Your task to perform on an android device: turn pop-ups on in chrome Image 0: 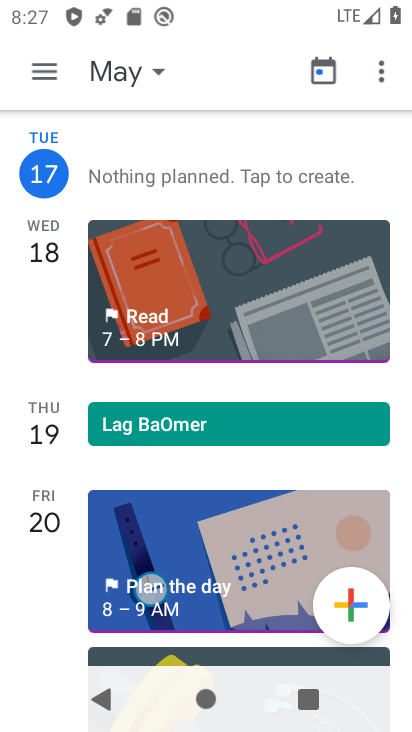
Step 0: press back button
Your task to perform on an android device: turn pop-ups on in chrome Image 1: 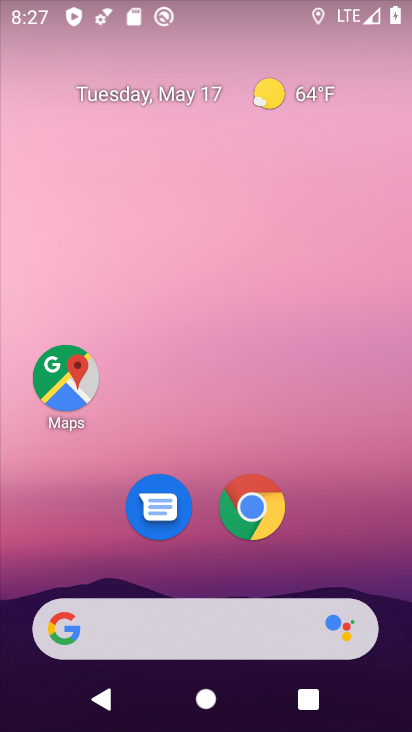
Step 1: click (254, 505)
Your task to perform on an android device: turn pop-ups on in chrome Image 2: 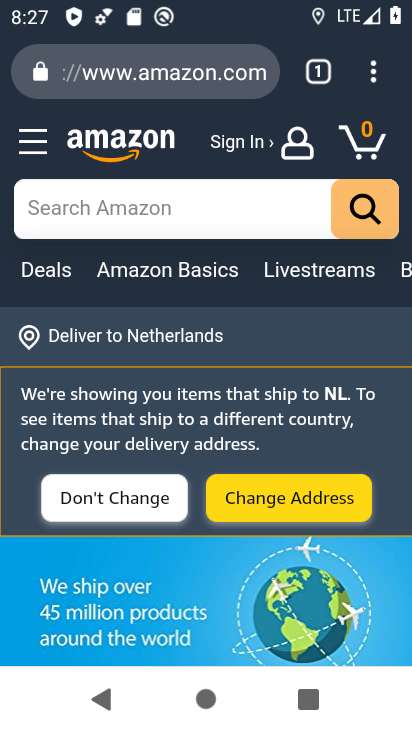
Step 2: click (374, 72)
Your task to perform on an android device: turn pop-ups on in chrome Image 3: 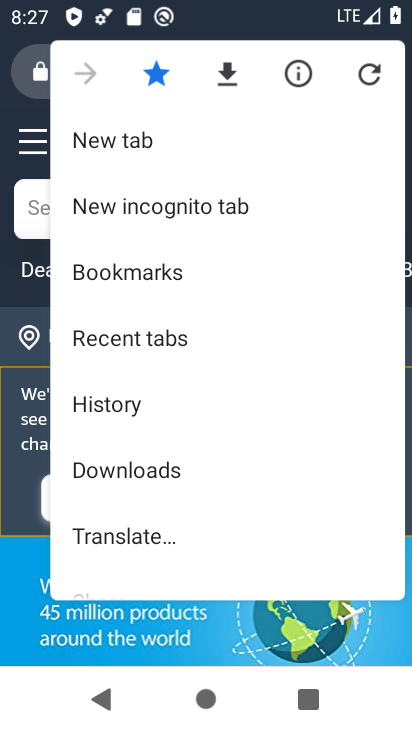
Step 3: drag from (189, 429) to (242, 344)
Your task to perform on an android device: turn pop-ups on in chrome Image 4: 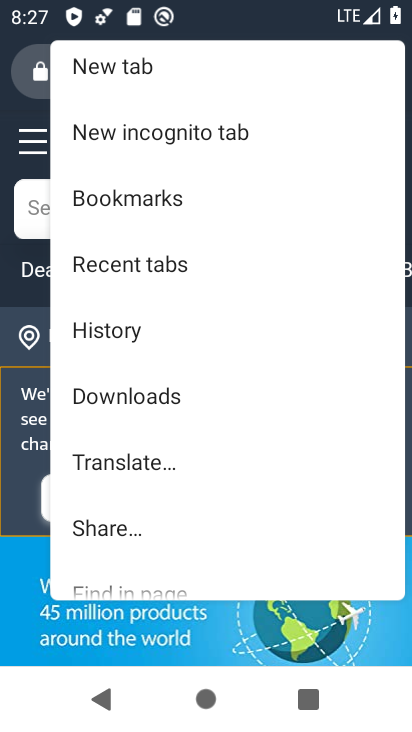
Step 4: drag from (197, 517) to (233, 437)
Your task to perform on an android device: turn pop-ups on in chrome Image 5: 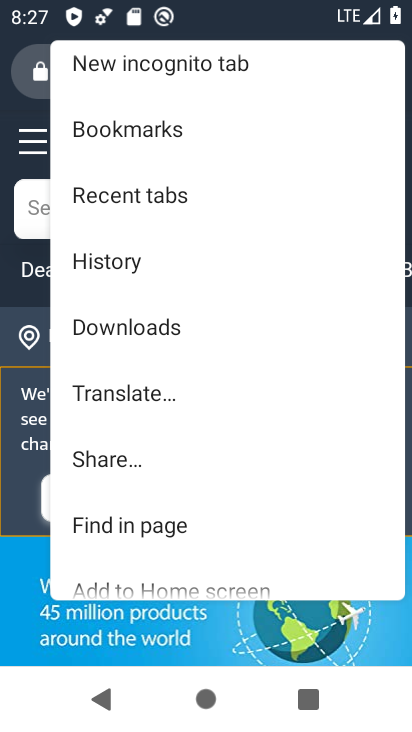
Step 5: drag from (162, 560) to (233, 436)
Your task to perform on an android device: turn pop-ups on in chrome Image 6: 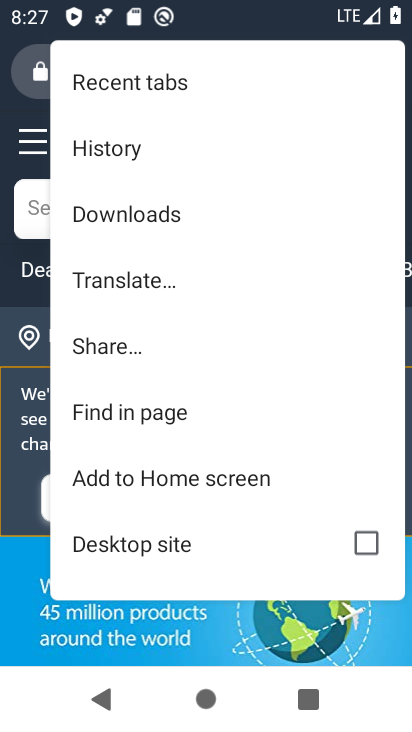
Step 6: drag from (200, 571) to (279, 471)
Your task to perform on an android device: turn pop-ups on in chrome Image 7: 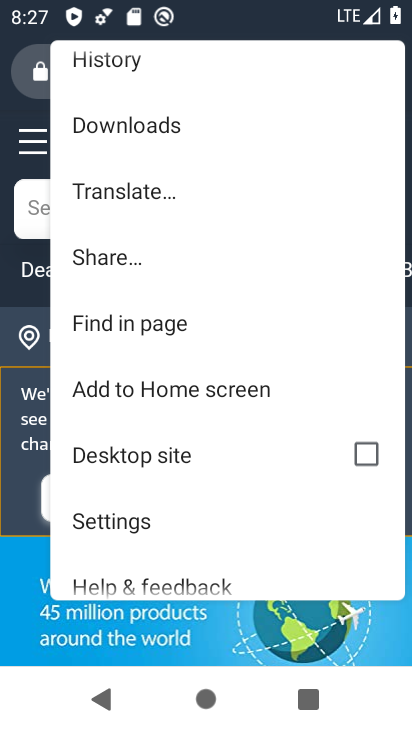
Step 7: click (128, 525)
Your task to perform on an android device: turn pop-ups on in chrome Image 8: 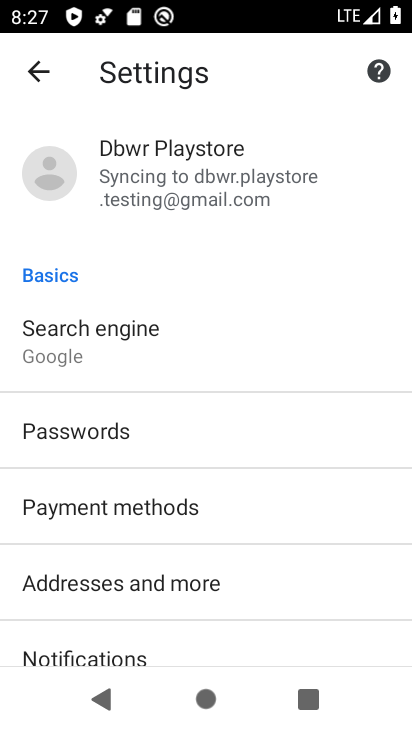
Step 8: drag from (125, 549) to (171, 459)
Your task to perform on an android device: turn pop-ups on in chrome Image 9: 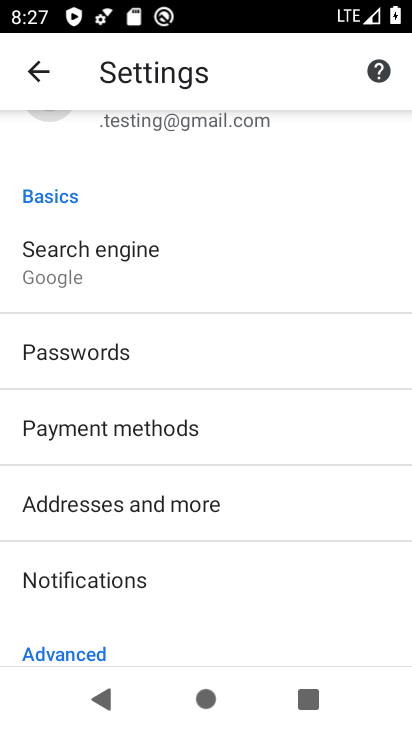
Step 9: drag from (150, 564) to (207, 487)
Your task to perform on an android device: turn pop-ups on in chrome Image 10: 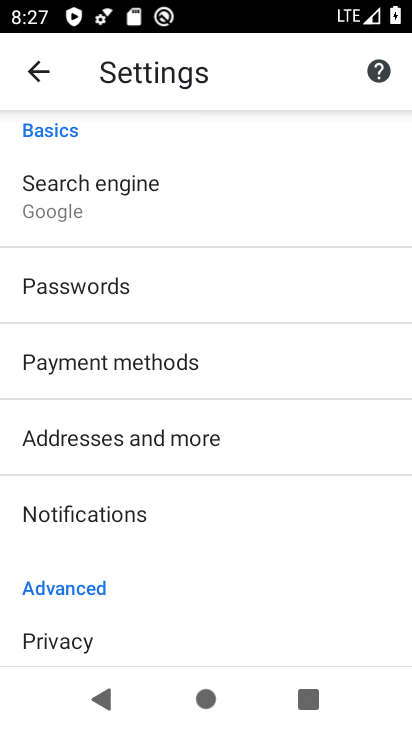
Step 10: drag from (143, 567) to (191, 498)
Your task to perform on an android device: turn pop-ups on in chrome Image 11: 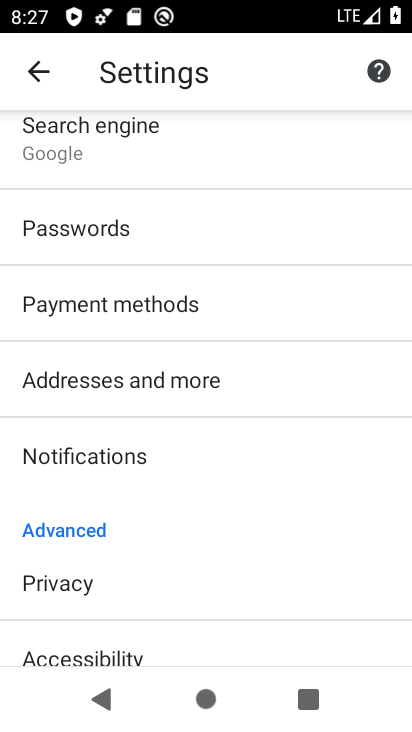
Step 11: drag from (128, 582) to (195, 464)
Your task to perform on an android device: turn pop-ups on in chrome Image 12: 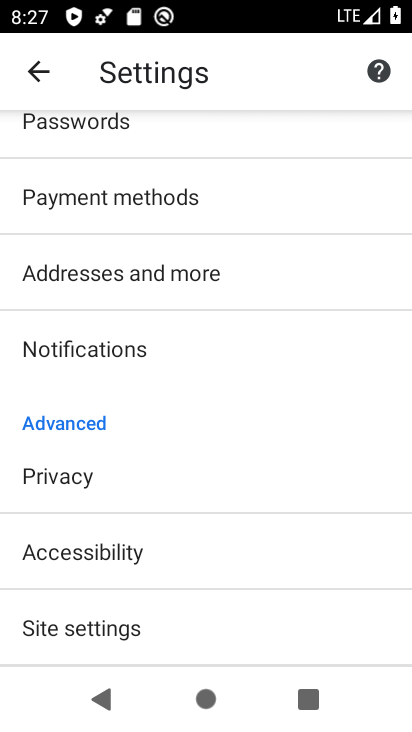
Step 12: drag from (172, 566) to (192, 498)
Your task to perform on an android device: turn pop-ups on in chrome Image 13: 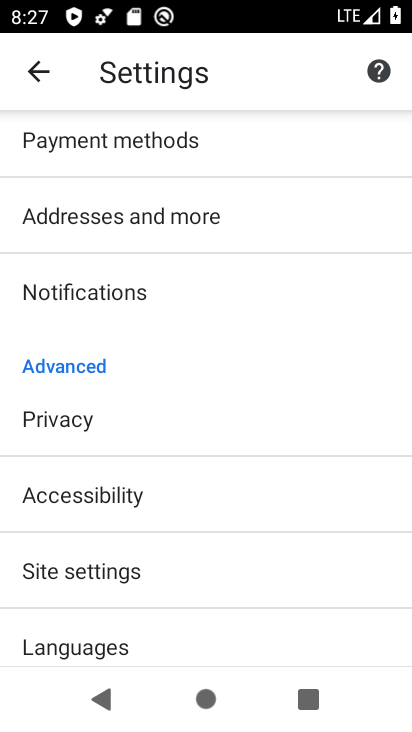
Step 13: drag from (162, 588) to (220, 523)
Your task to perform on an android device: turn pop-ups on in chrome Image 14: 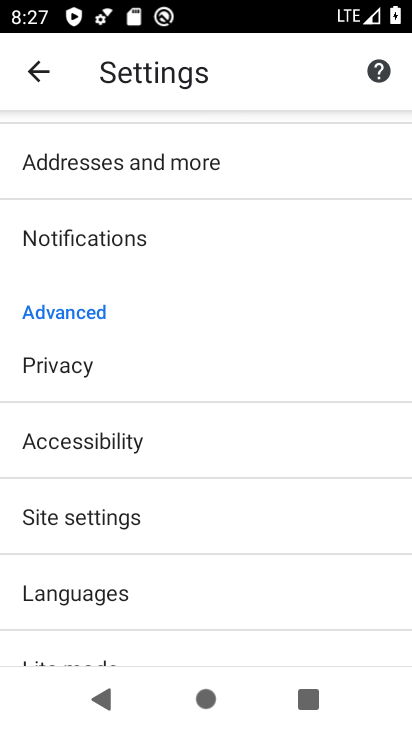
Step 14: click (135, 518)
Your task to perform on an android device: turn pop-ups on in chrome Image 15: 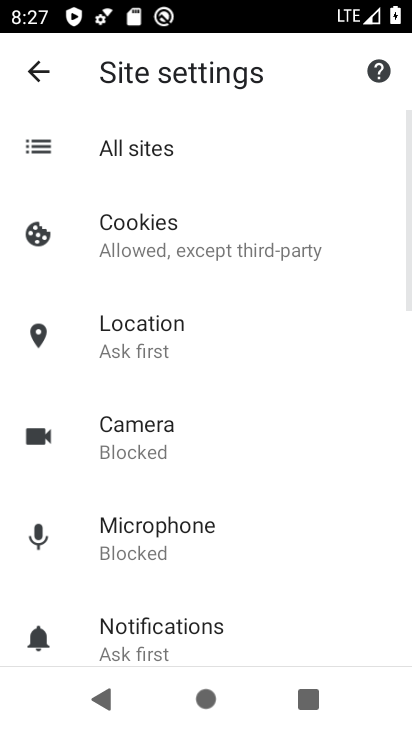
Step 15: drag from (152, 587) to (200, 503)
Your task to perform on an android device: turn pop-ups on in chrome Image 16: 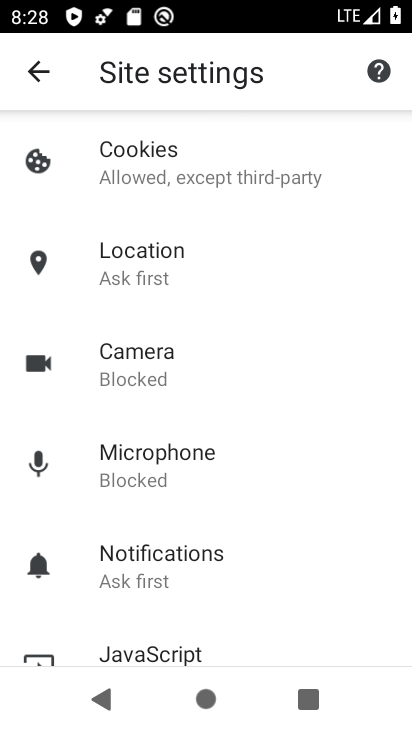
Step 16: drag from (197, 595) to (242, 511)
Your task to perform on an android device: turn pop-ups on in chrome Image 17: 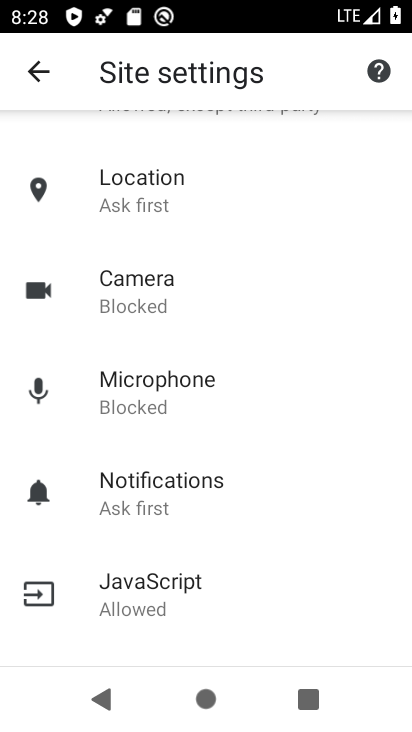
Step 17: drag from (176, 617) to (247, 500)
Your task to perform on an android device: turn pop-ups on in chrome Image 18: 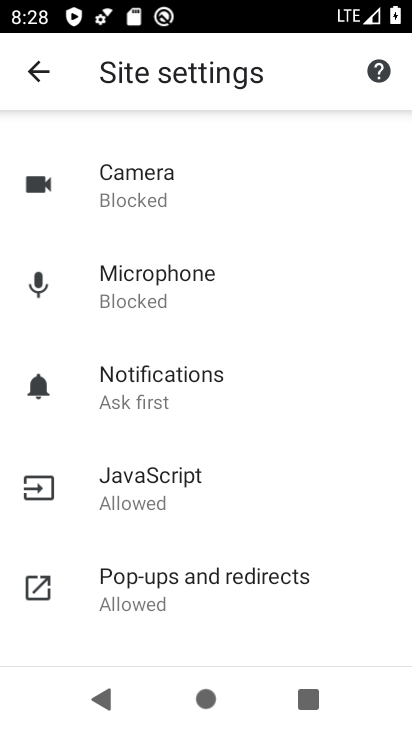
Step 18: click (192, 585)
Your task to perform on an android device: turn pop-ups on in chrome Image 19: 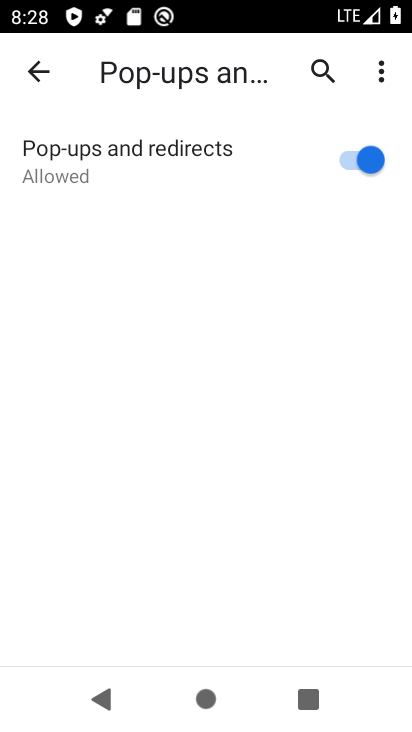
Step 19: task complete